Your task to perform on an android device: Open calendar and show me the second week of next month Image 0: 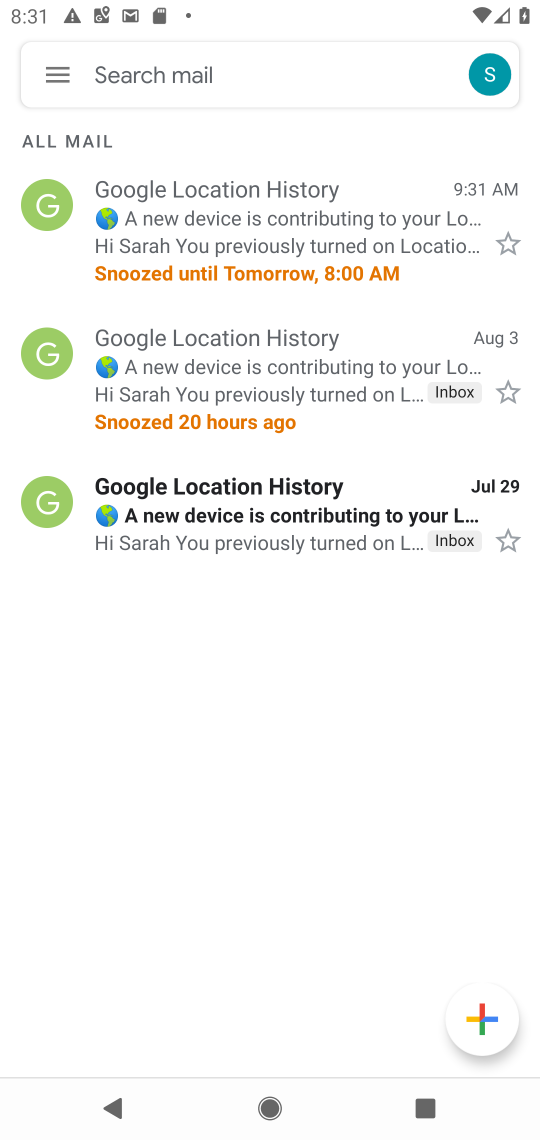
Step 0: press home button
Your task to perform on an android device: Open calendar and show me the second week of next month Image 1: 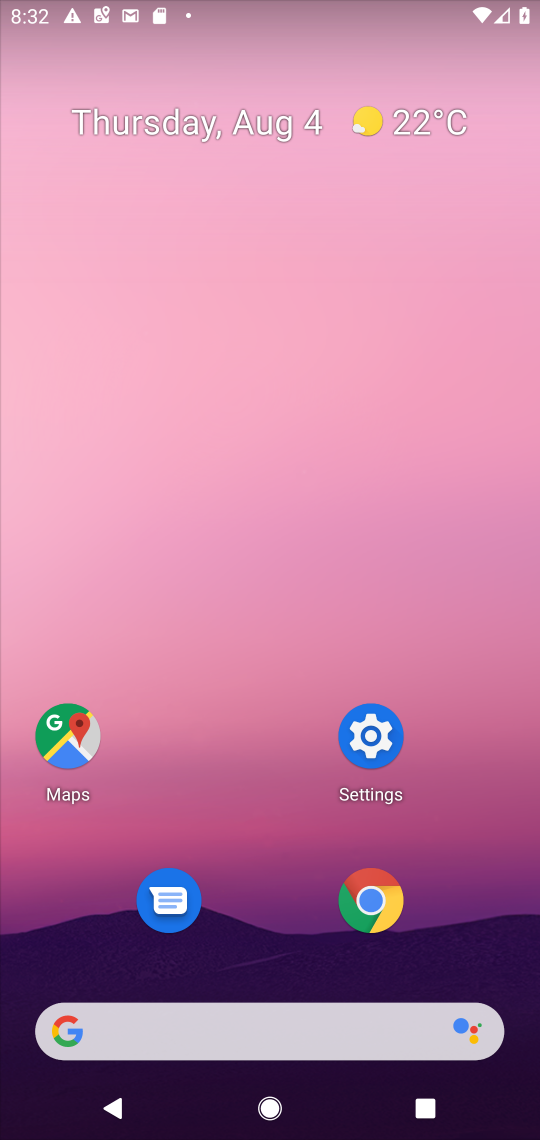
Step 1: drag from (203, 1021) to (345, 81)
Your task to perform on an android device: Open calendar and show me the second week of next month Image 2: 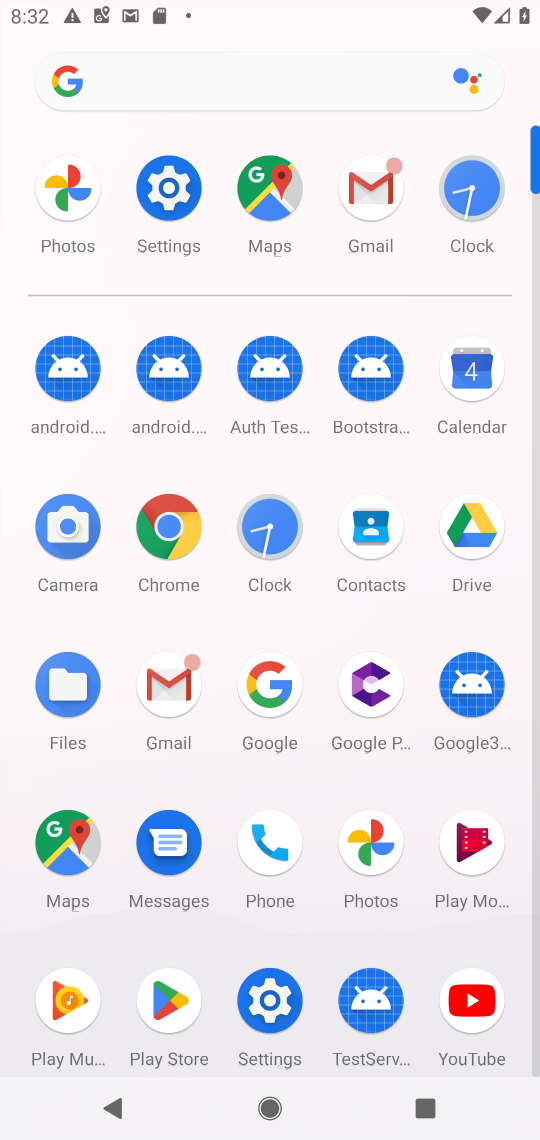
Step 2: click (469, 384)
Your task to perform on an android device: Open calendar and show me the second week of next month Image 3: 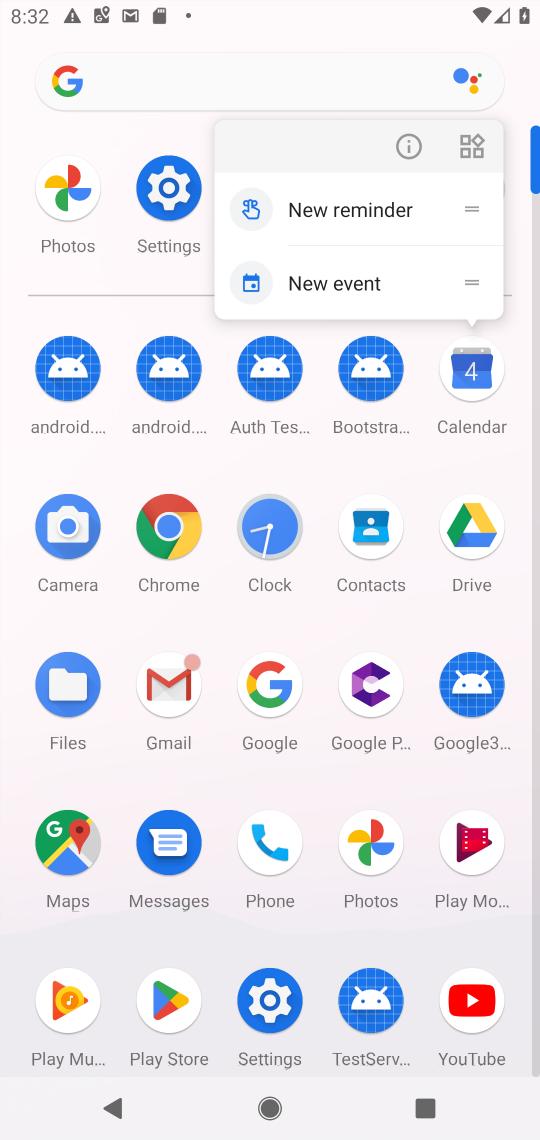
Step 3: click (477, 373)
Your task to perform on an android device: Open calendar and show me the second week of next month Image 4: 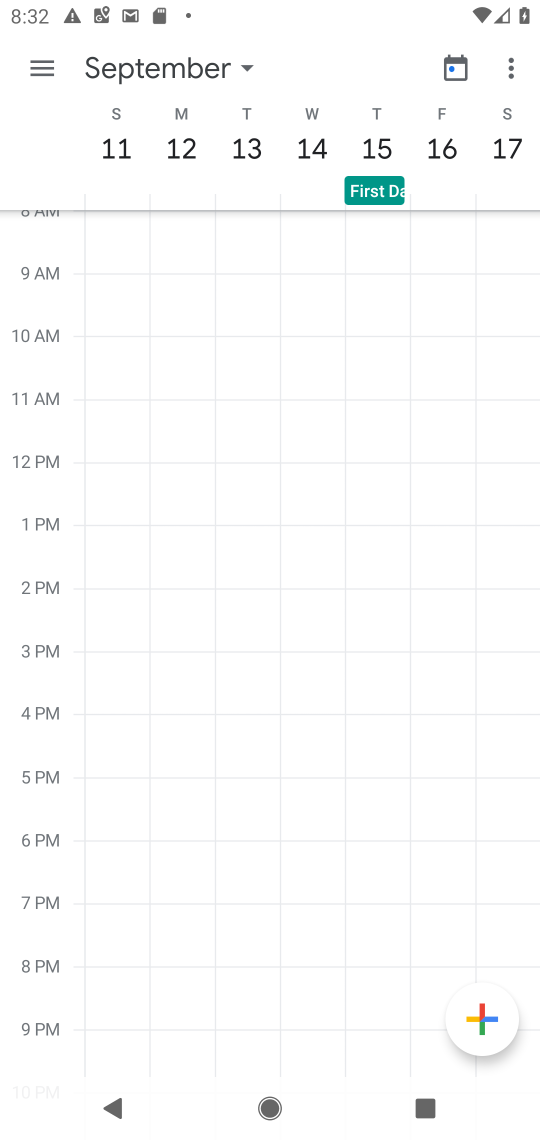
Step 4: click (184, 78)
Your task to perform on an android device: Open calendar and show me the second week of next month Image 5: 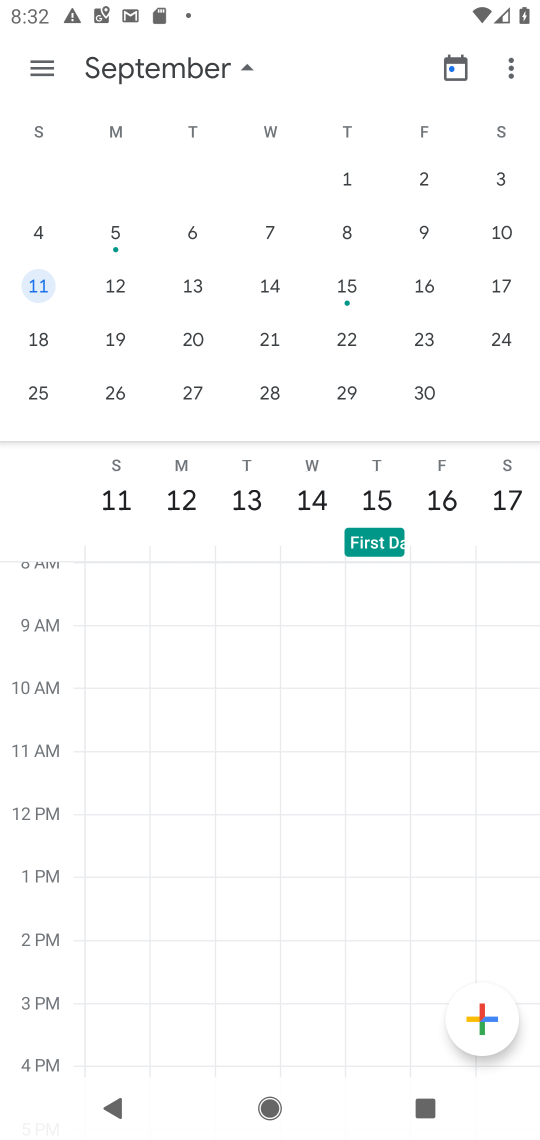
Step 5: click (42, 240)
Your task to perform on an android device: Open calendar and show me the second week of next month Image 6: 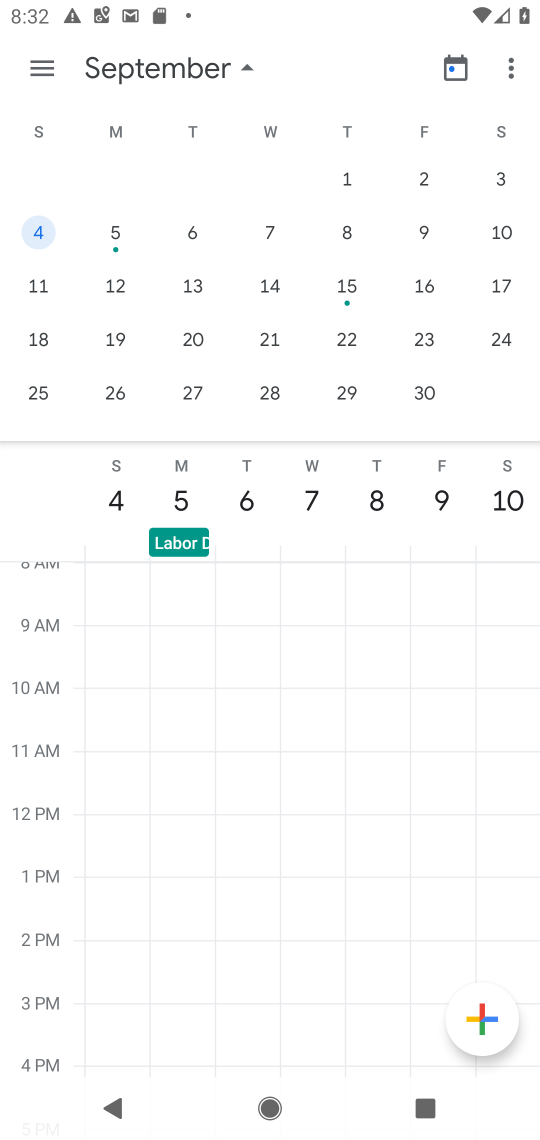
Step 6: click (35, 63)
Your task to perform on an android device: Open calendar and show me the second week of next month Image 7: 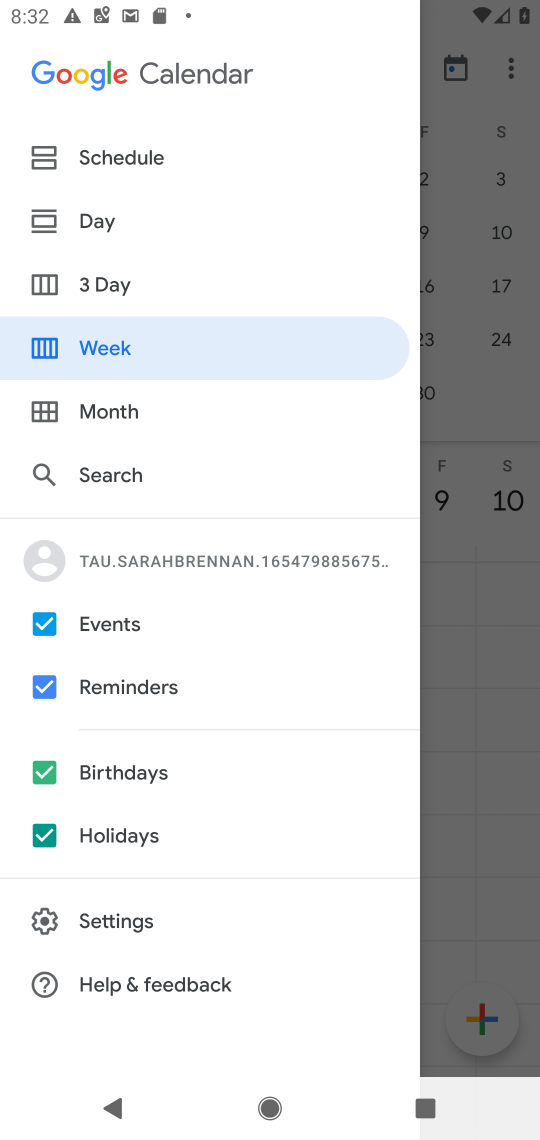
Step 7: click (115, 345)
Your task to perform on an android device: Open calendar and show me the second week of next month Image 8: 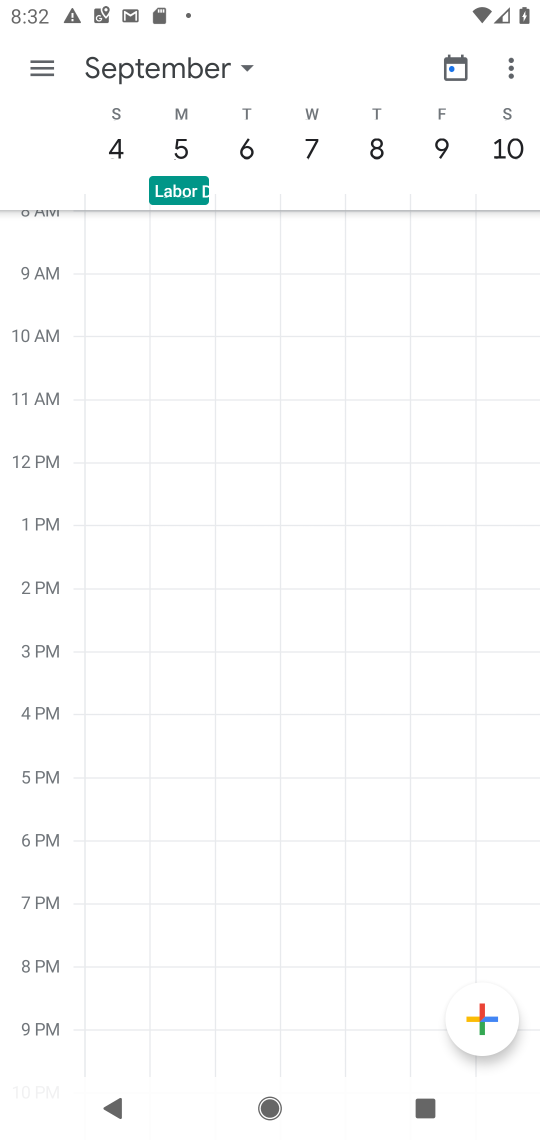
Step 8: task complete